Your task to perform on an android device: open app "Google Chat" (install if not already installed) Image 0: 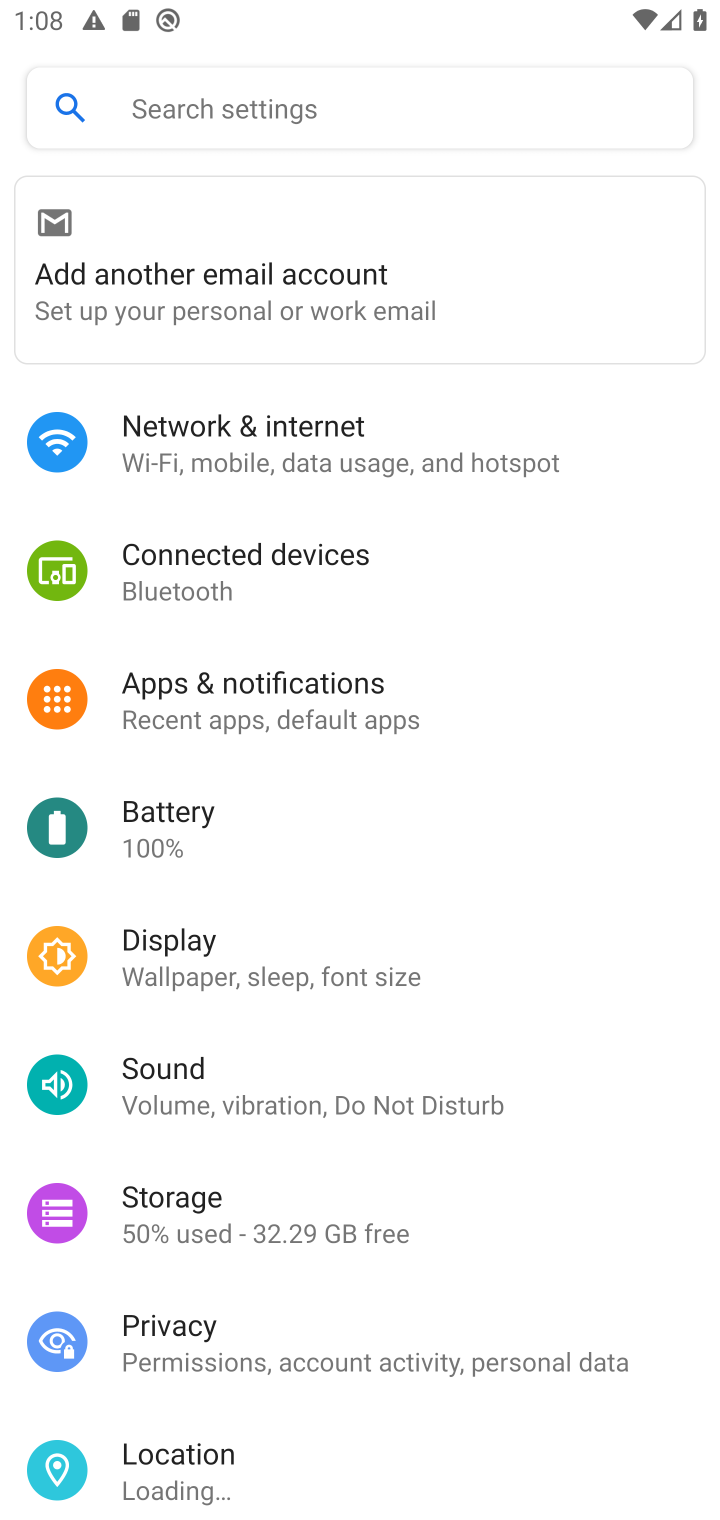
Step 0: press home button
Your task to perform on an android device: open app "Google Chat" (install if not already installed) Image 1: 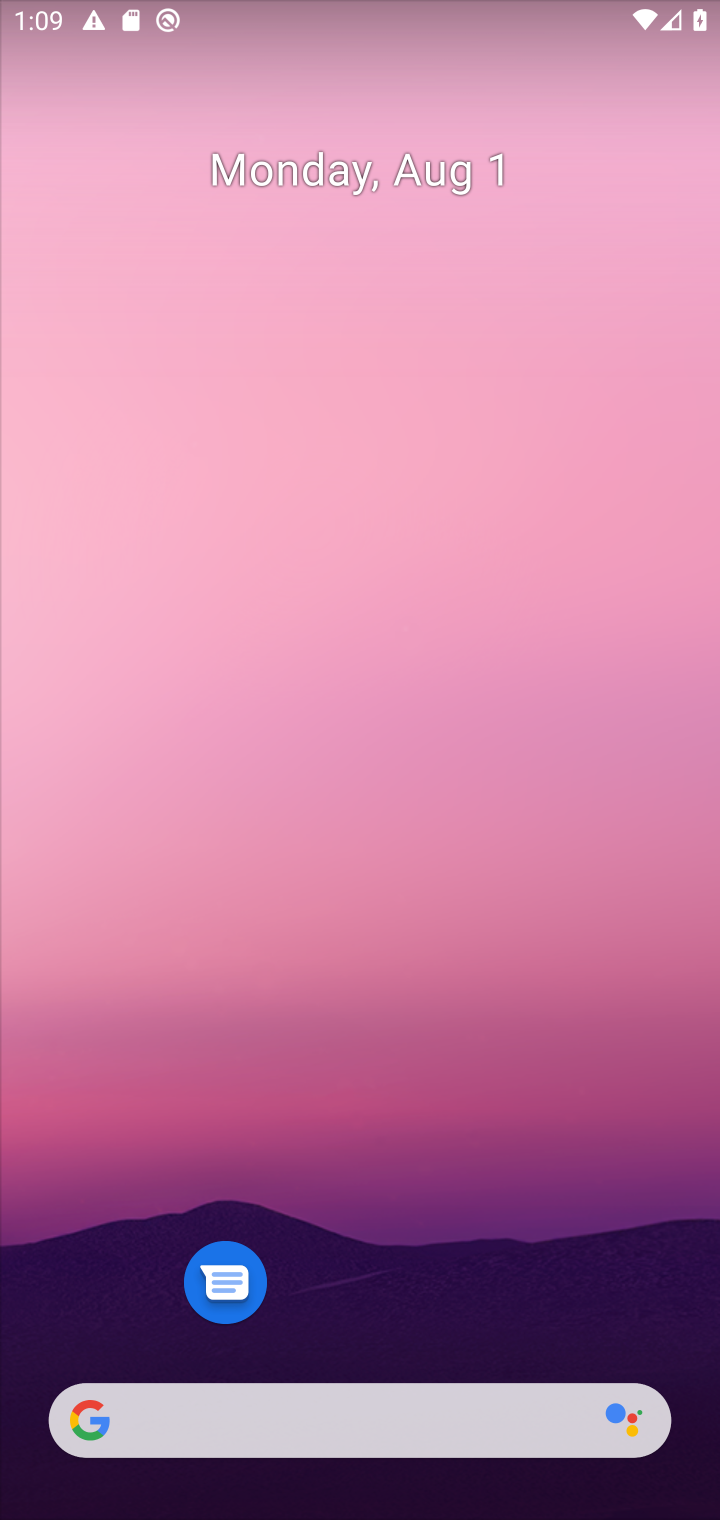
Step 1: drag from (335, 1238) to (328, 121)
Your task to perform on an android device: open app "Google Chat" (install if not already installed) Image 2: 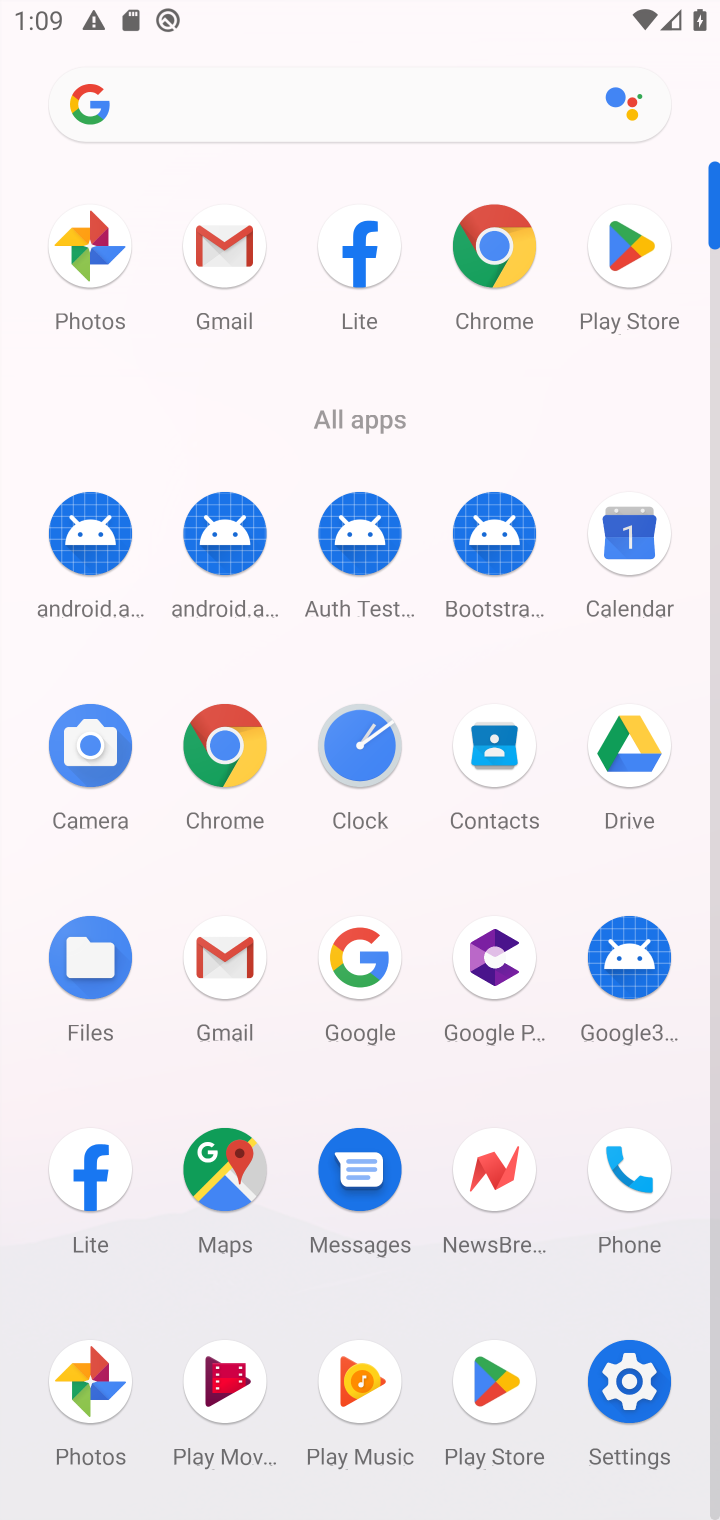
Step 2: click (481, 1382)
Your task to perform on an android device: open app "Google Chat" (install if not already installed) Image 3: 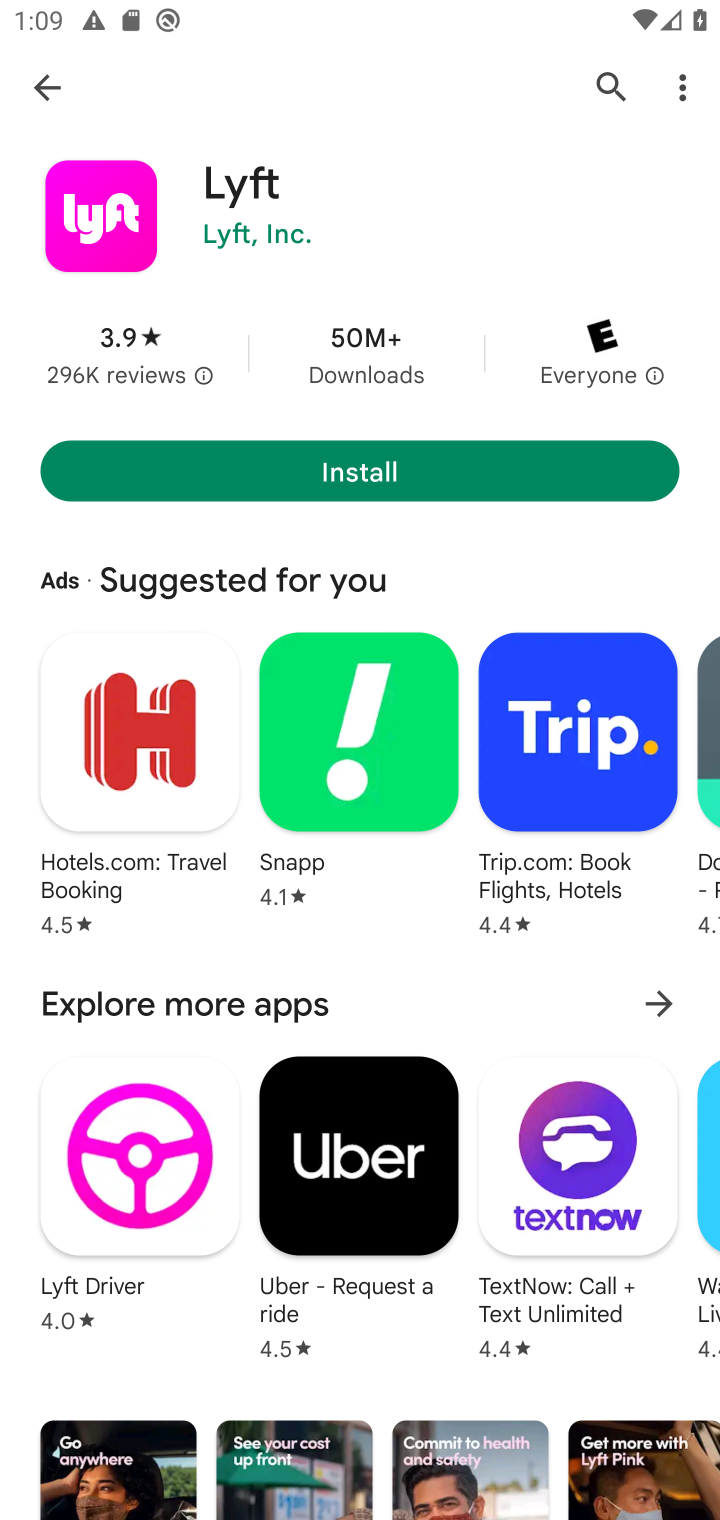
Step 3: click (81, 100)
Your task to perform on an android device: open app "Google Chat" (install if not already installed) Image 4: 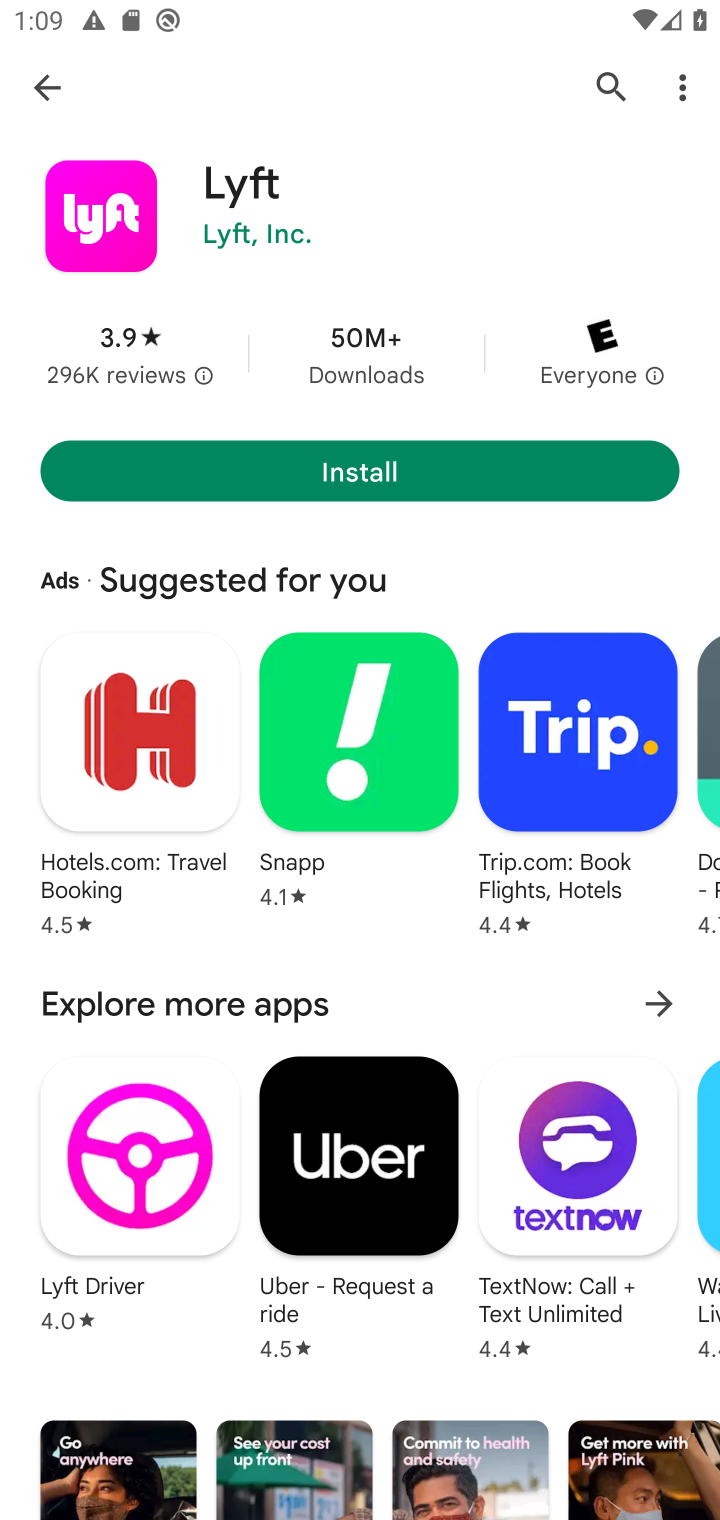
Step 4: click (47, 96)
Your task to perform on an android device: open app "Google Chat" (install if not already installed) Image 5: 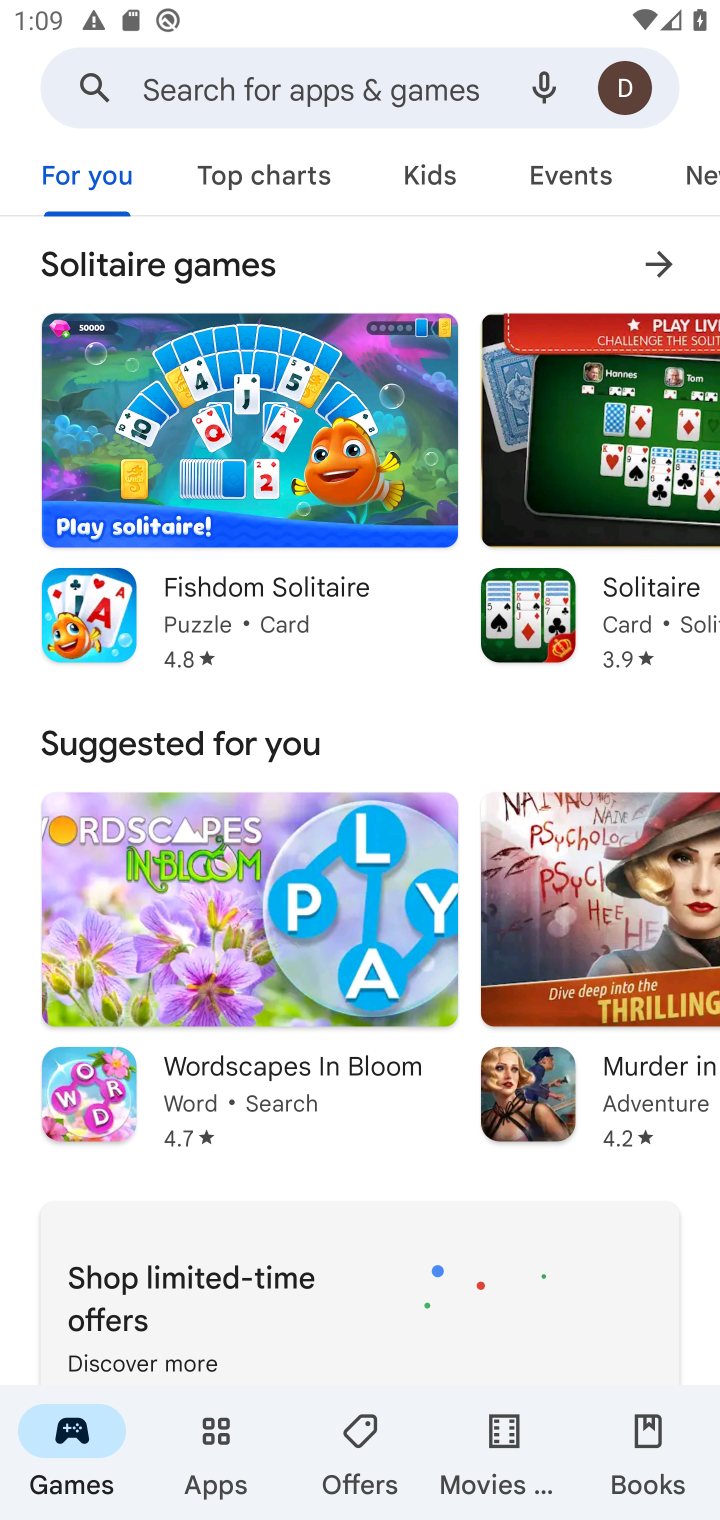
Step 5: click (268, 52)
Your task to perform on an android device: open app "Google Chat" (install if not already installed) Image 6: 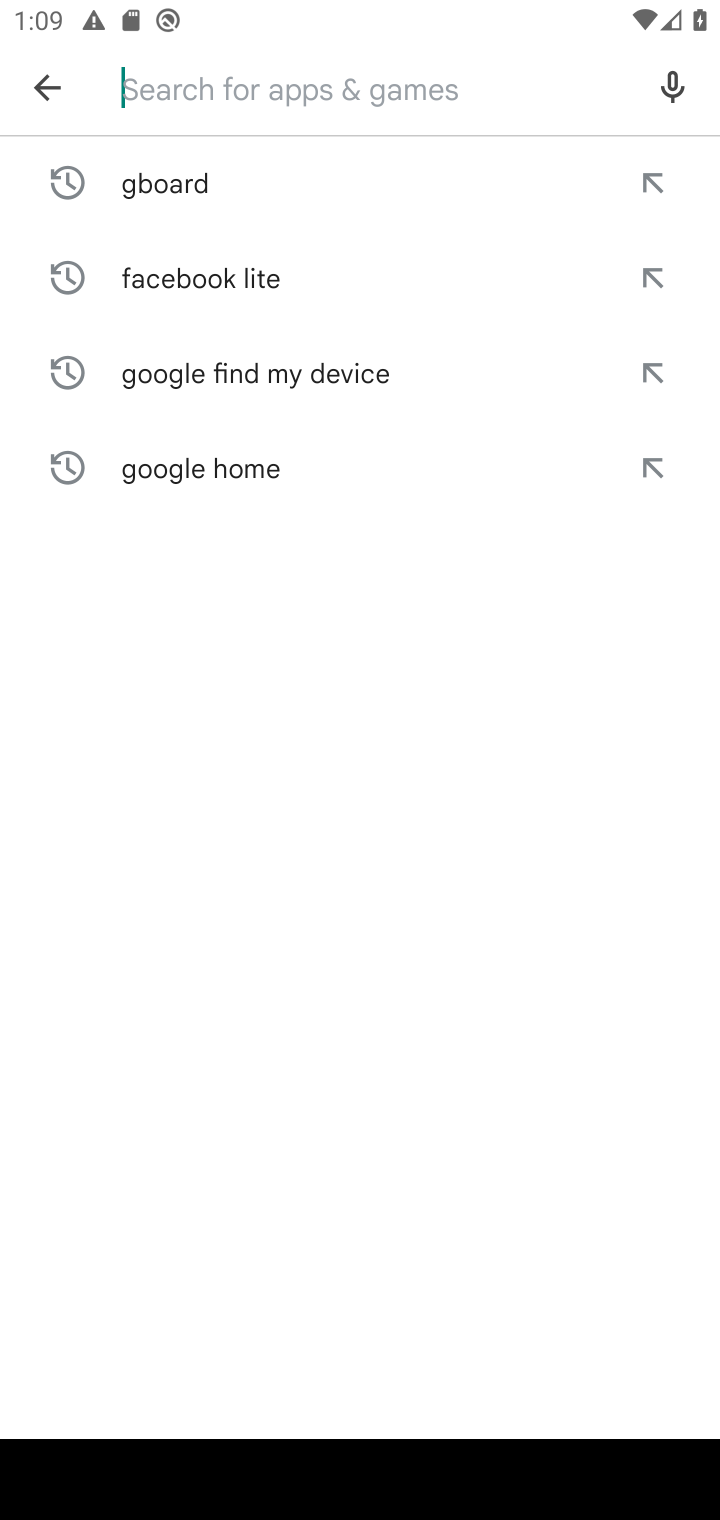
Step 6: type "Google Chat"
Your task to perform on an android device: open app "Google Chat" (install if not already installed) Image 7: 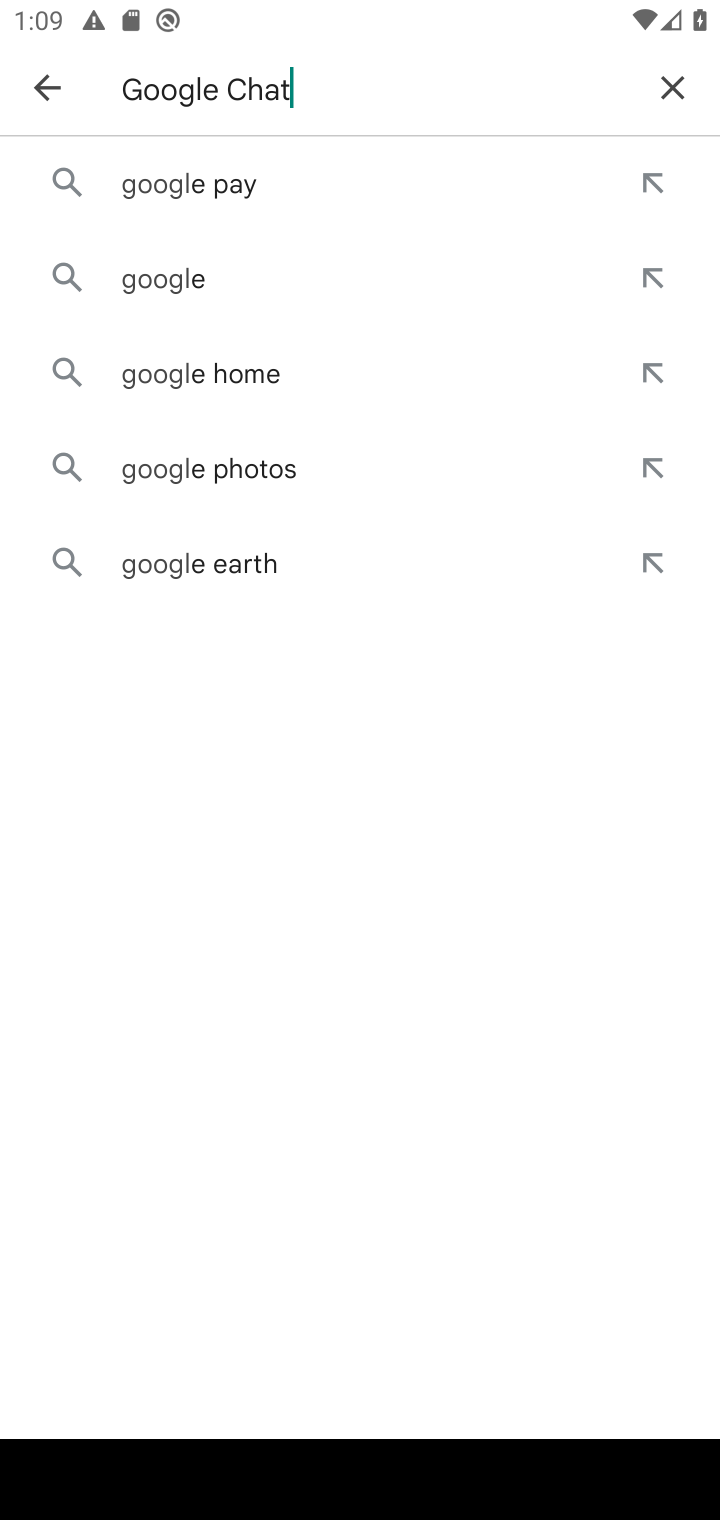
Step 7: type ""
Your task to perform on an android device: open app "Google Chat" (install if not already installed) Image 8: 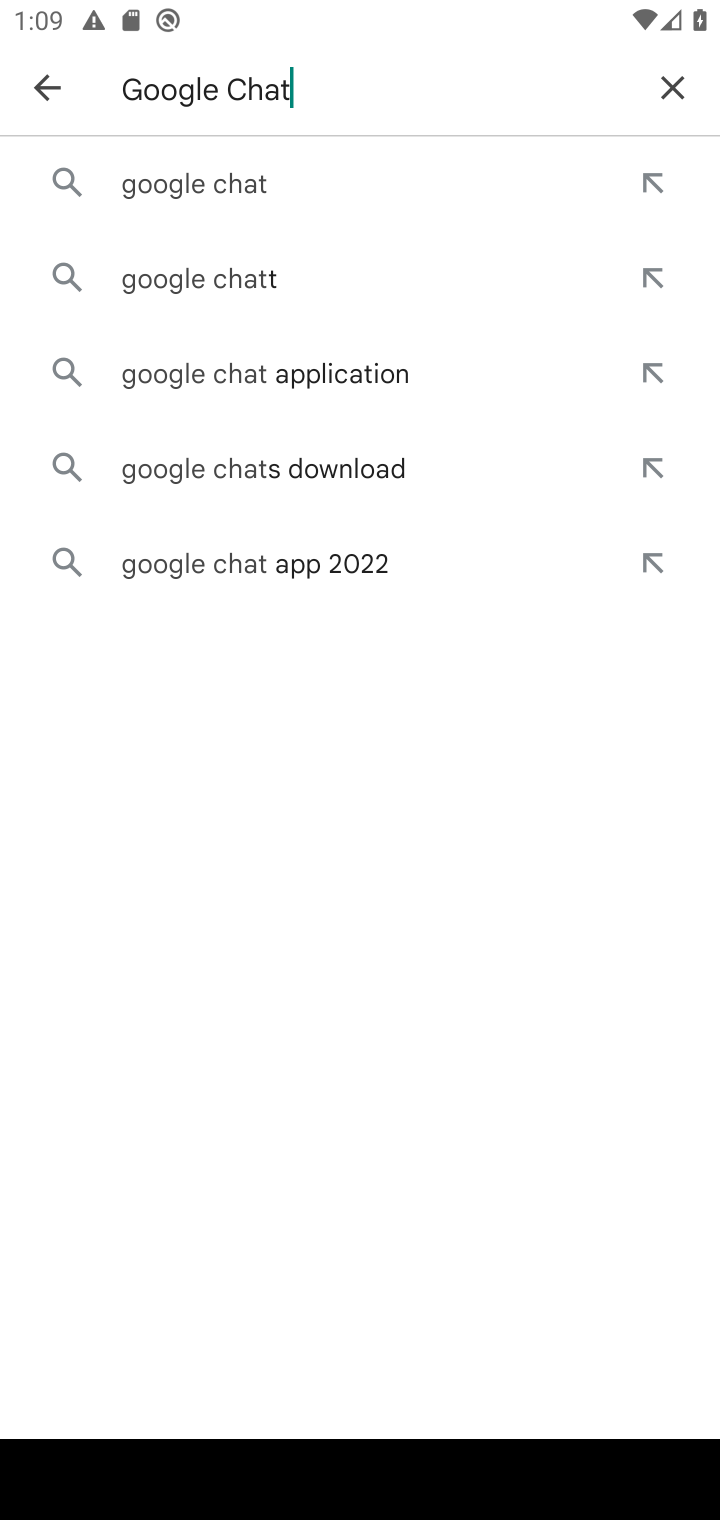
Step 8: click (194, 169)
Your task to perform on an android device: open app "Google Chat" (install if not already installed) Image 9: 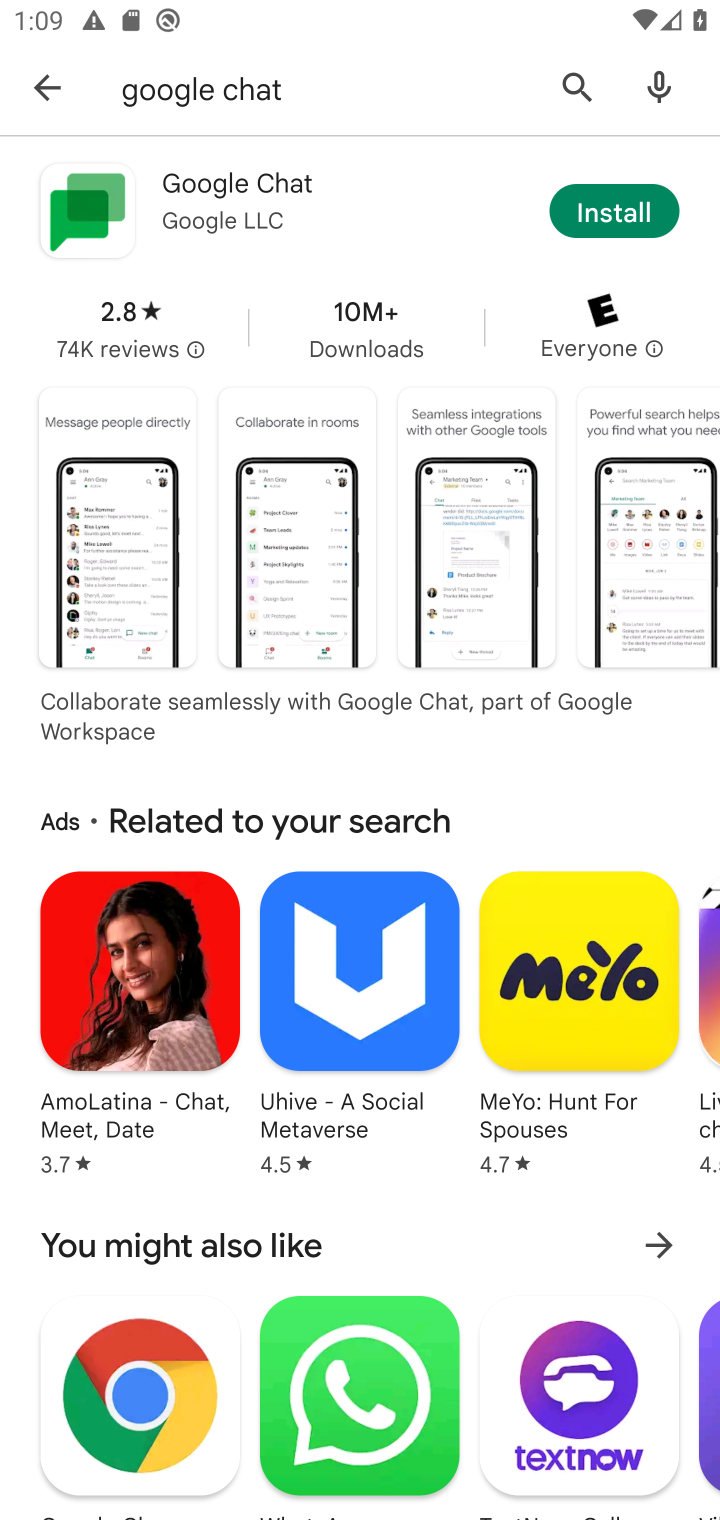
Step 9: click (619, 244)
Your task to perform on an android device: open app "Google Chat" (install if not already installed) Image 10: 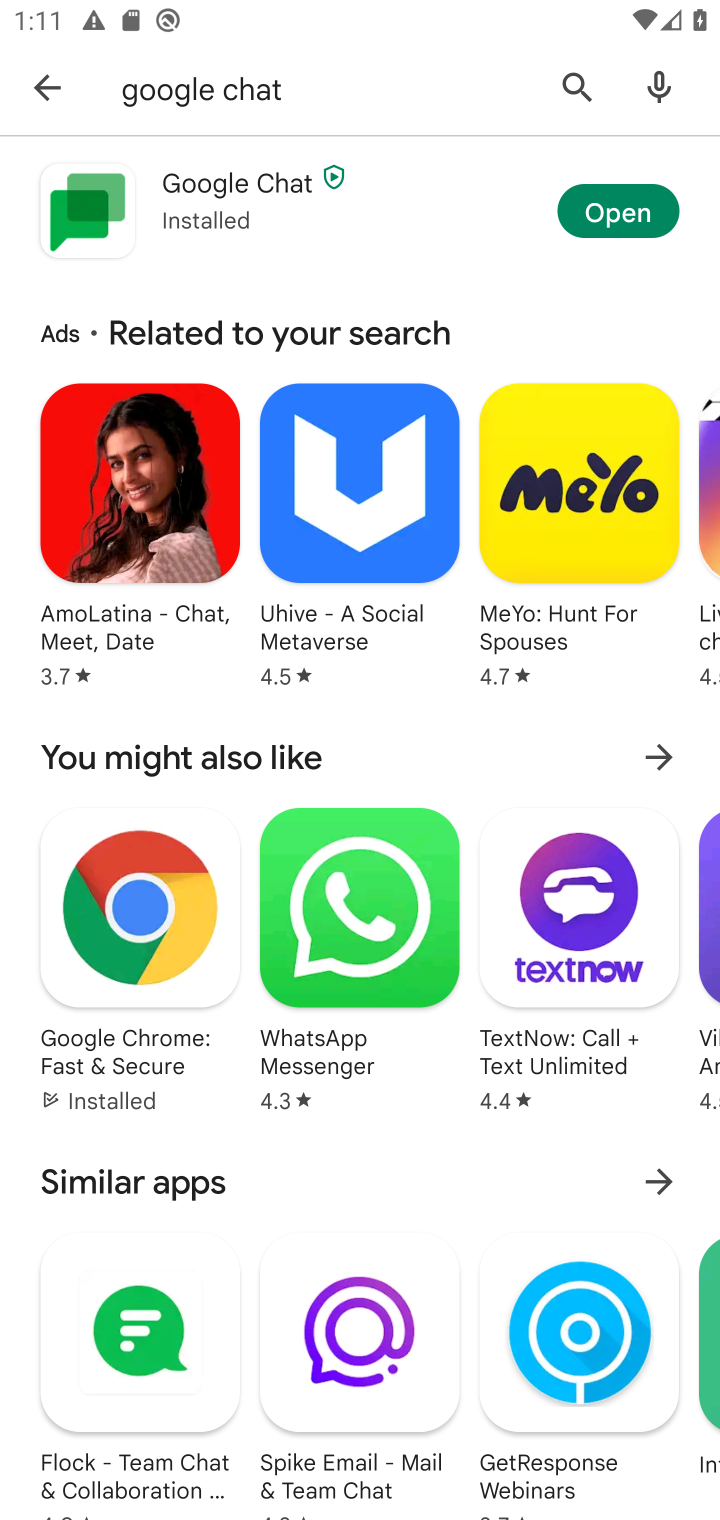
Step 10: task complete